Your task to perform on an android device: Go to Maps Image 0: 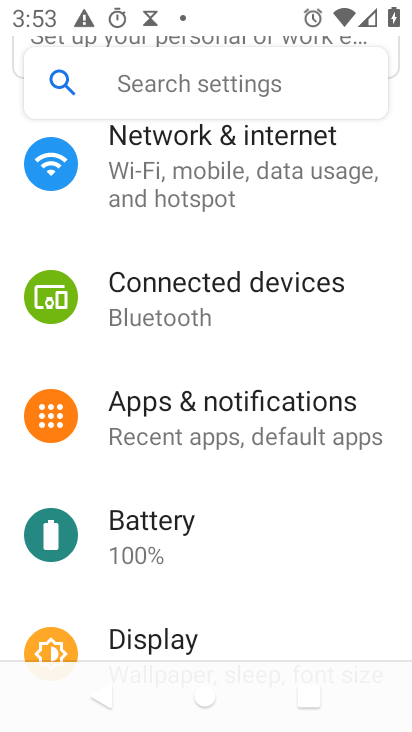
Step 0: press home button
Your task to perform on an android device: Go to Maps Image 1: 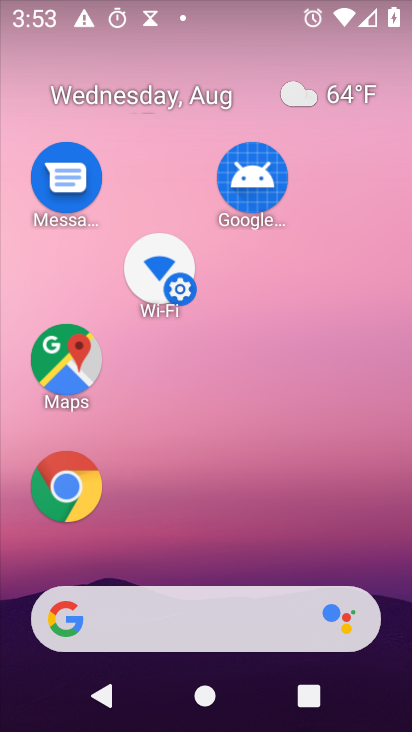
Step 1: click (79, 389)
Your task to perform on an android device: Go to Maps Image 2: 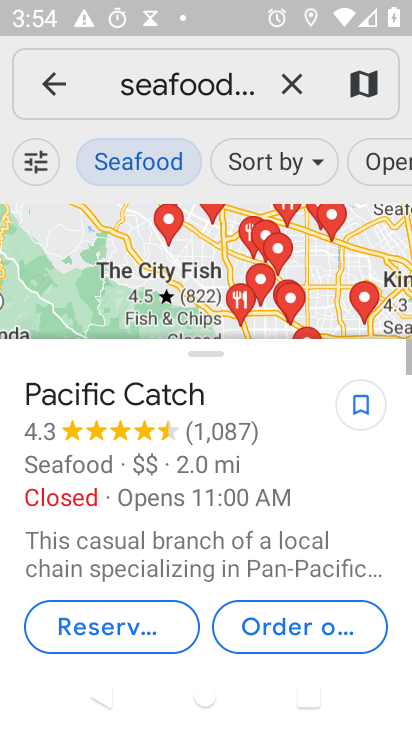
Step 2: task complete